Your task to perform on an android device: Open settings Image 0: 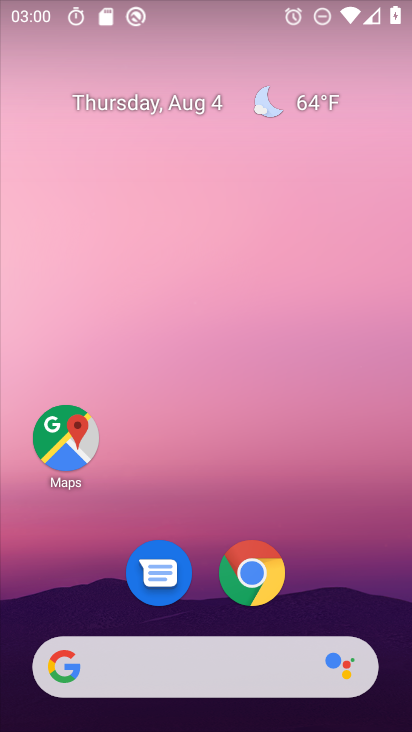
Step 0: drag from (349, 559) to (307, 116)
Your task to perform on an android device: Open settings Image 1: 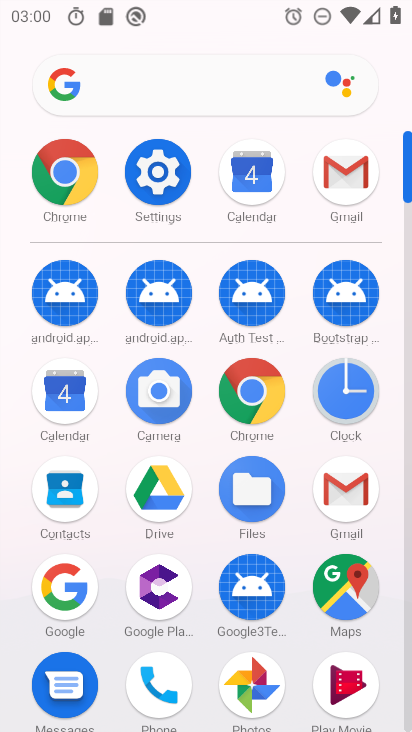
Step 1: click (163, 159)
Your task to perform on an android device: Open settings Image 2: 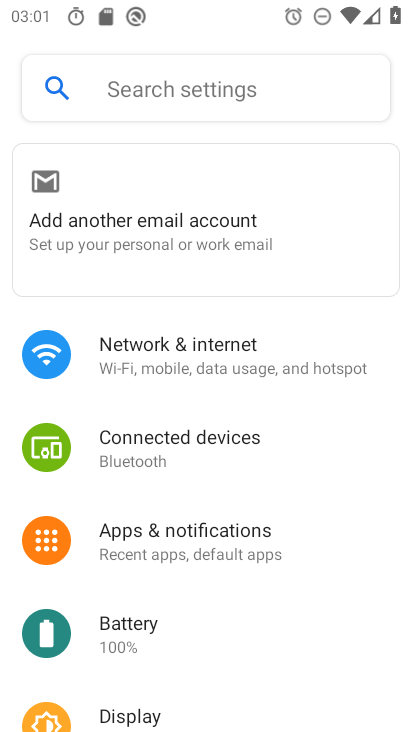
Step 2: task complete